Your task to perform on an android device: What's on my calendar today? Image 0: 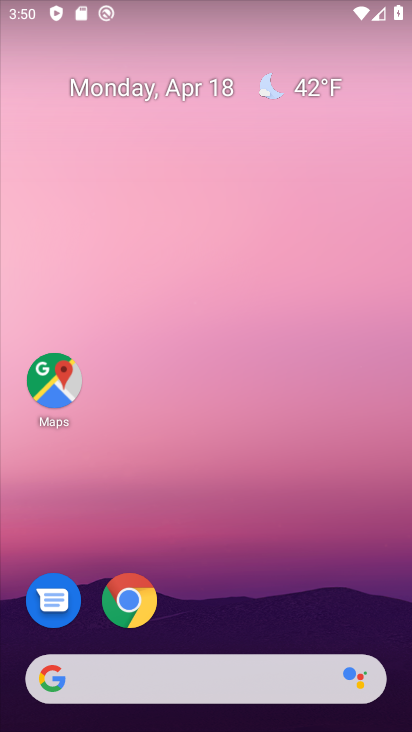
Step 0: drag from (207, 580) to (299, 5)
Your task to perform on an android device: What's on my calendar today? Image 1: 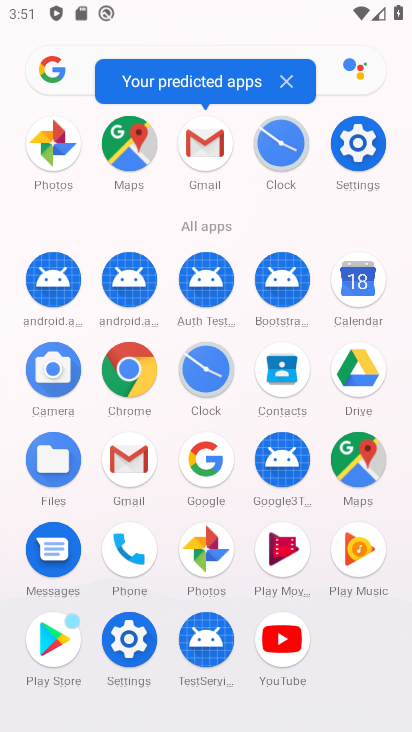
Step 1: click (351, 289)
Your task to perform on an android device: What's on my calendar today? Image 2: 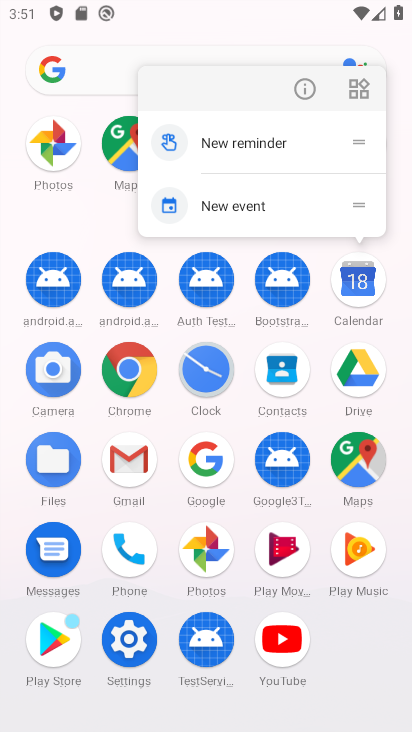
Step 2: click (344, 302)
Your task to perform on an android device: What's on my calendar today? Image 3: 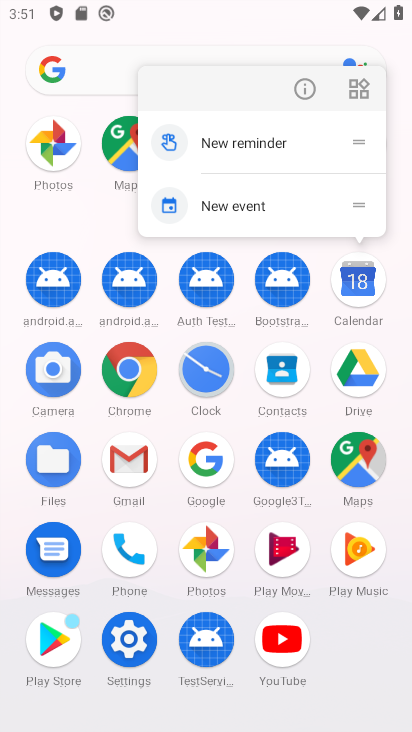
Step 3: click (366, 303)
Your task to perform on an android device: What's on my calendar today? Image 4: 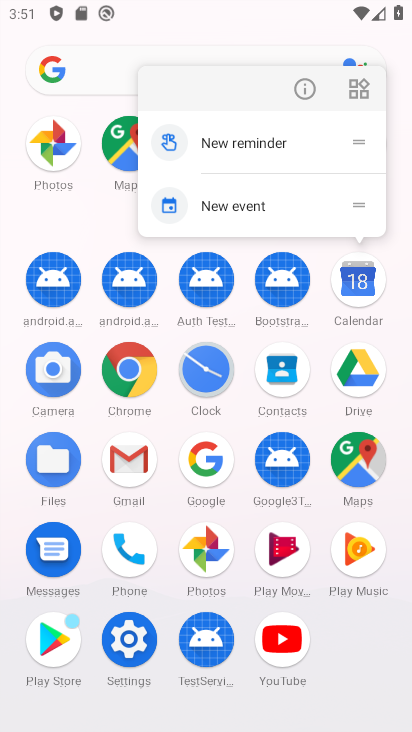
Step 4: click (365, 279)
Your task to perform on an android device: What's on my calendar today? Image 5: 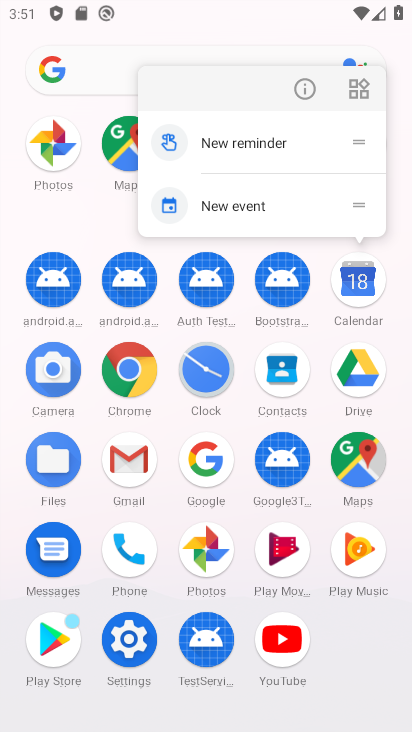
Step 5: click (362, 277)
Your task to perform on an android device: What's on my calendar today? Image 6: 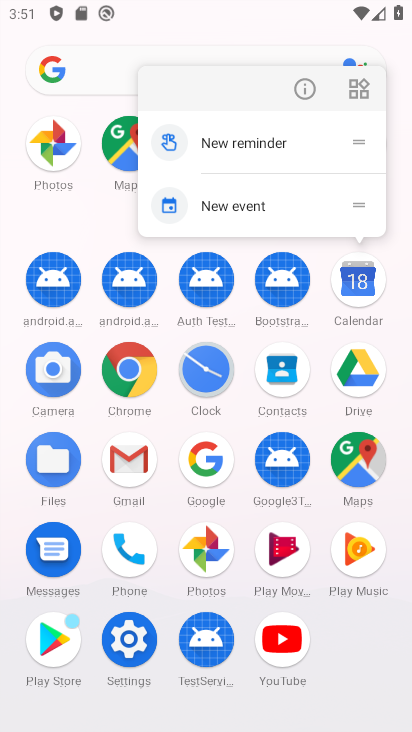
Step 6: click (355, 288)
Your task to perform on an android device: What's on my calendar today? Image 7: 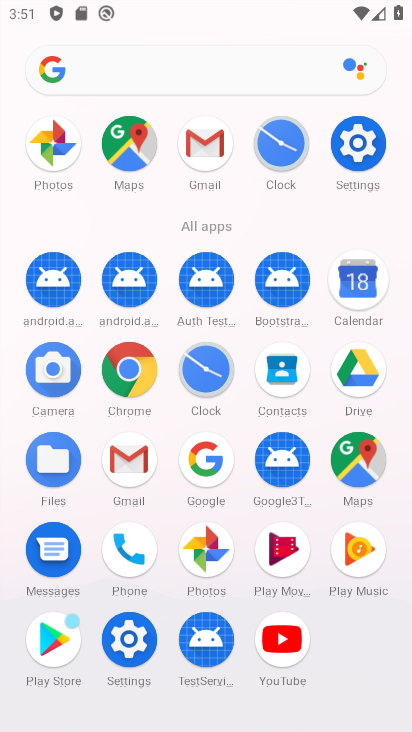
Step 7: click (355, 288)
Your task to perform on an android device: What's on my calendar today? Image 8: 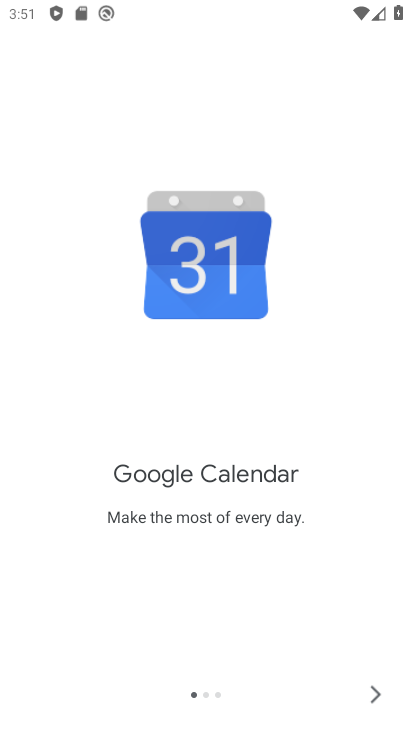
Step 8: click (383, 696)
Your task to perform on an android device: What's on my calendar today? Image 9: 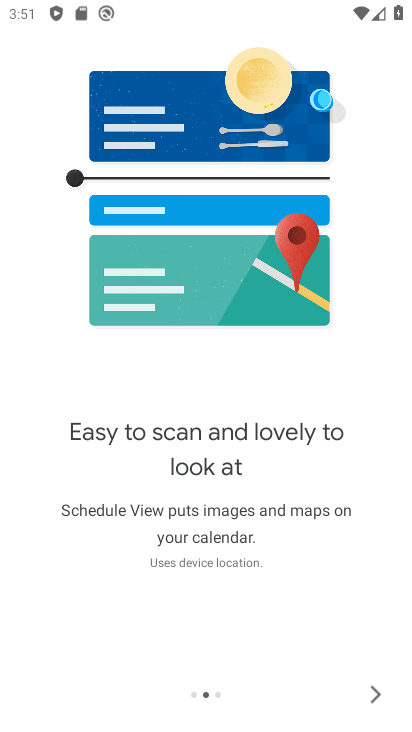
Step 9: click (383, 696)
Your task to perform on an android device: What's on my calendar today? Image 10: 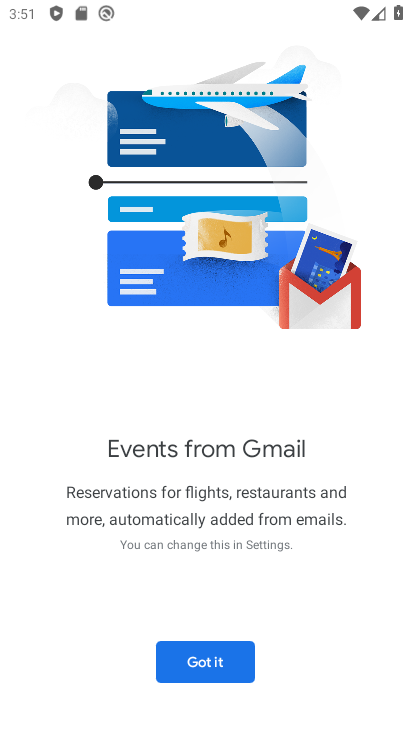
Step 10: click (231, 676)
Your task to perform on an android device: What's on my calendar today? Image 11: 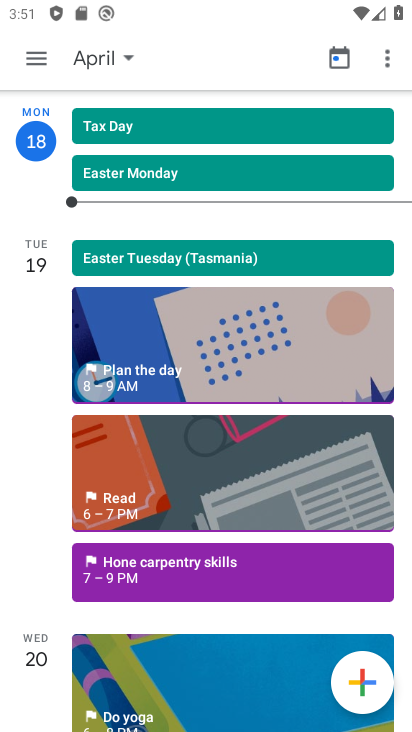
Step 11: click (42, 63)
Your task to perform on an android device: What's on my calendar today? Image 12: 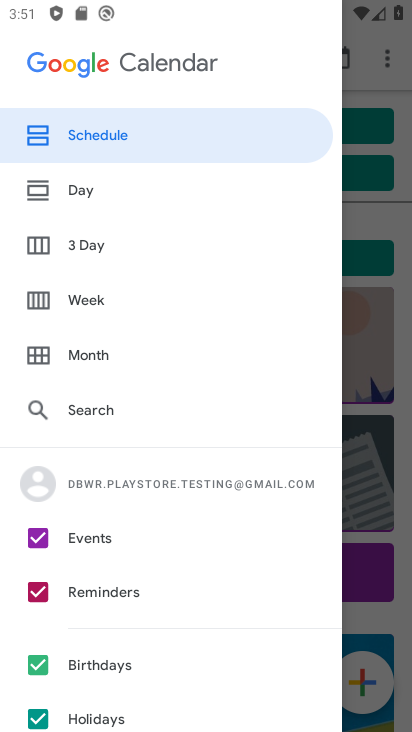
Step 12: click (136, 185)
Your task to perform on an android device: What's on my calendar today? Image 13: 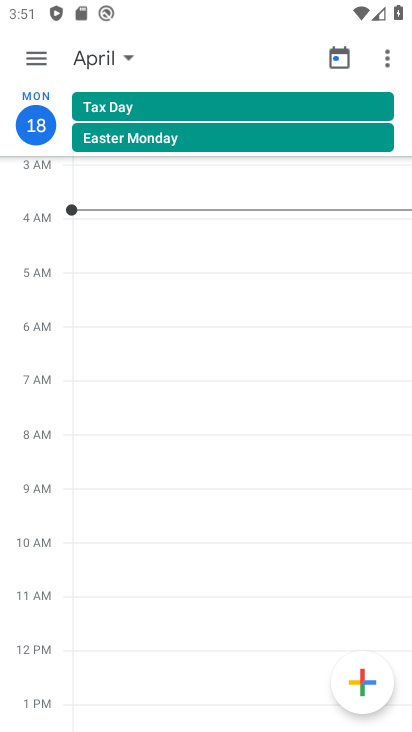
Step 13: task complete